Your task to perform on an android device: Open network settings Image 0: 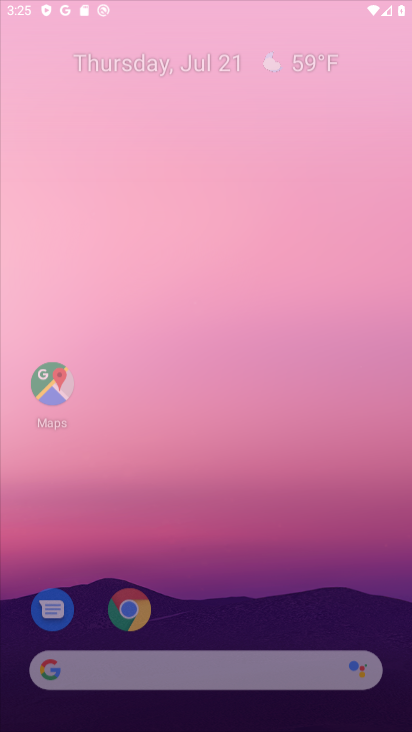
Step 0: drag from (263, 637) to (166, 144)
Your task to perform on an android device: Open network settings Image 1: 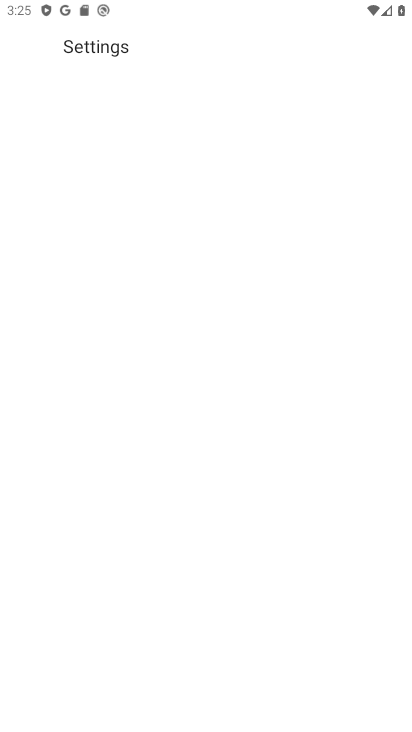
Step 1: drag from (223, 501) to (179, 6)
Your task to perform on an android device: Open network settings Image 2: 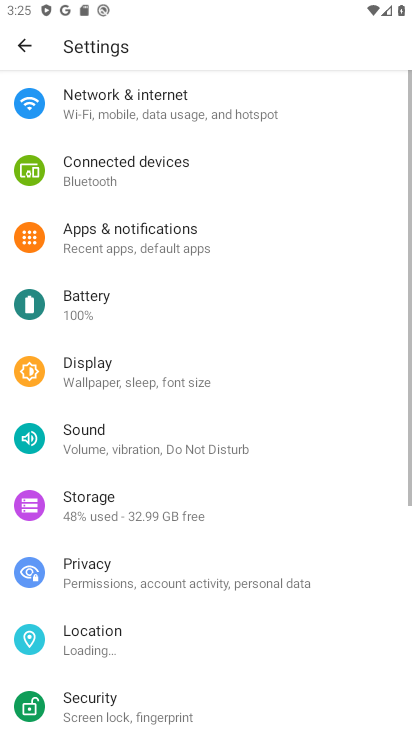
Step 2: press back button
Your task to perform on an android device: Open network settings Image 3: 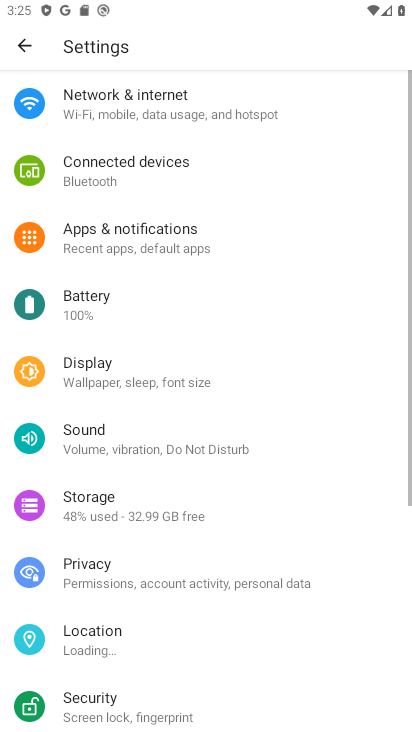
Step 3: press back button
Your task to perform on an android device: Open network settings Image 4: 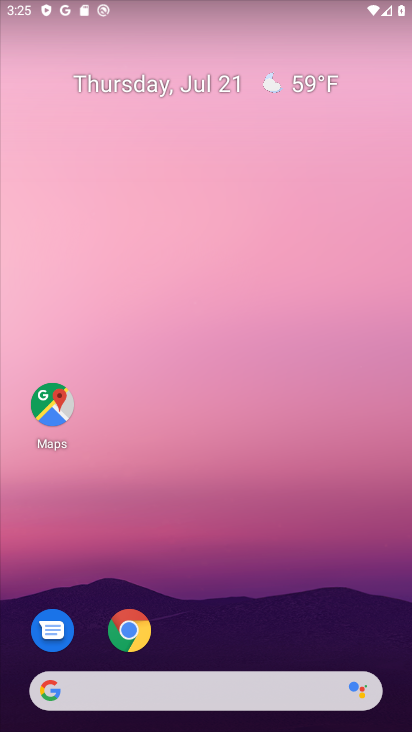
Step 4: drag from (258, 584) to (163, 145)
Your task to perform on an android device: Open network settings Image 5: 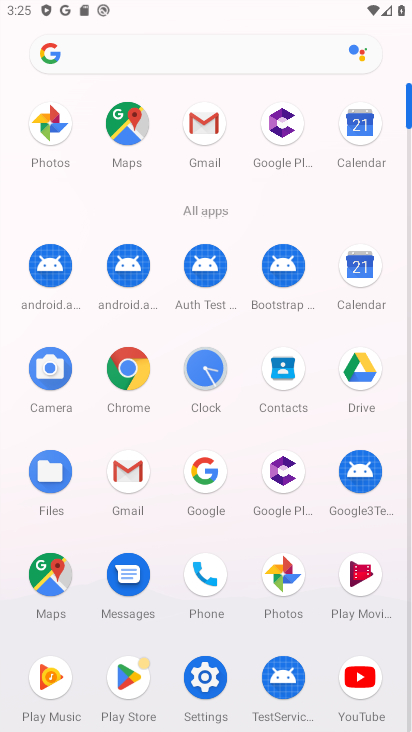
Step 5: click (195, 677)
Your task to perform on an android device: Open network settings Image 6: 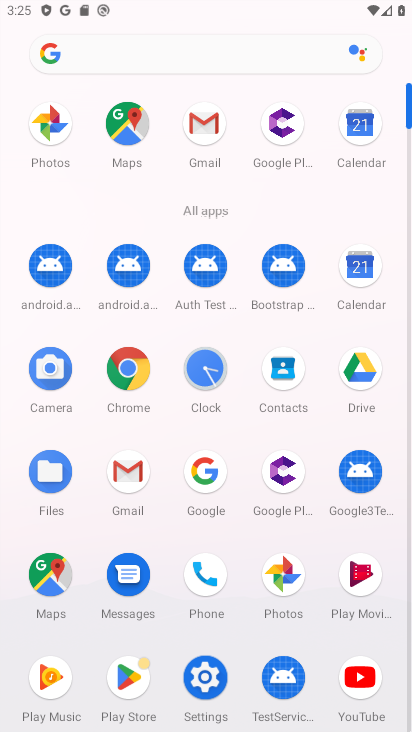
Step 6: click (197, 675)
Your task to perform on an android device: Open network settings Image 7: 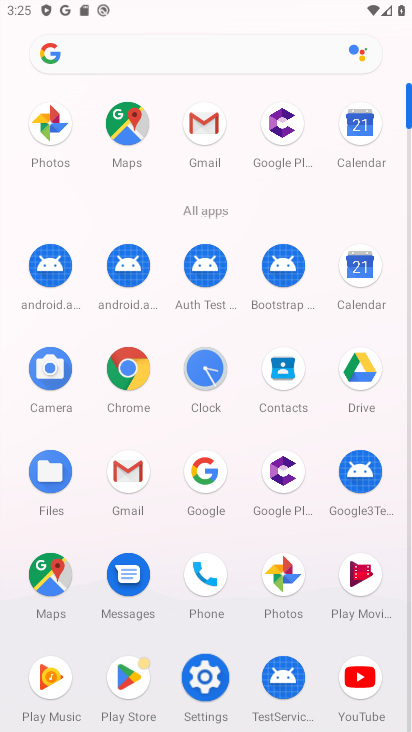
Step 7: click (208, 650)
Your task to perform on an android device: Open network settings Image 8: 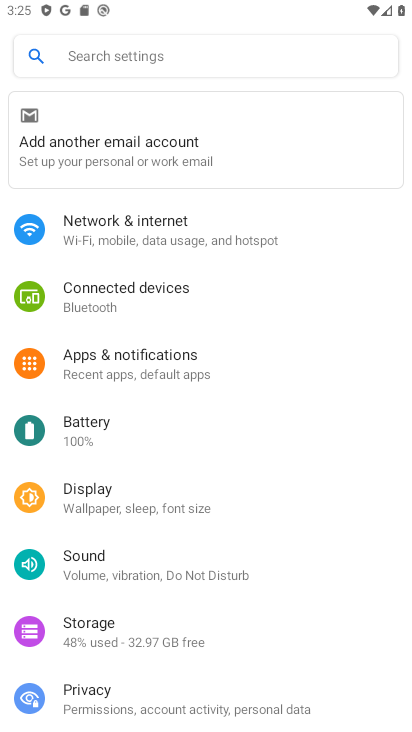
Step 8: click (149, 227)
Your task to perform on an android device: Open network settings Image 9: 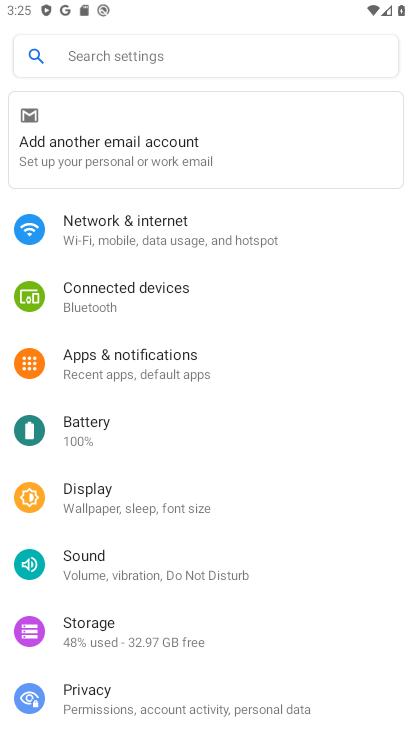
Step 9: click (149, 227)
Your task to perform on an android device: Open network settings Image 10: 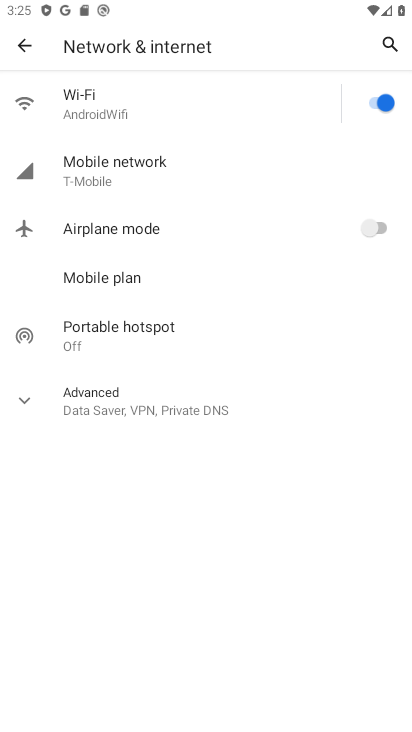
Step 10: task complete